Your task to perform on an android device: Open Google Maps and go to "Timeline" Image 0: 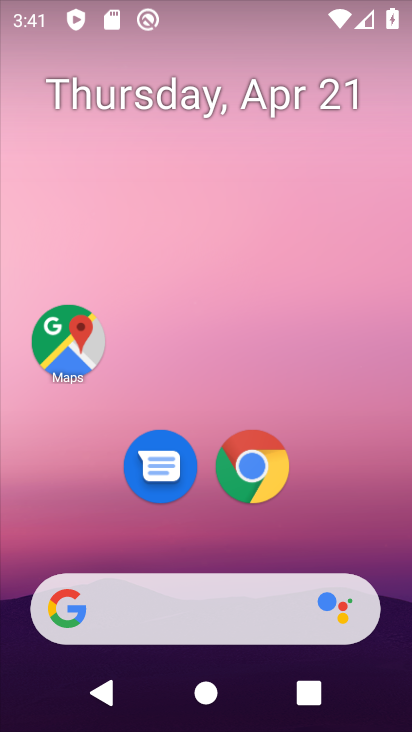
Step 0: click (71, 360)
Your task to perform on an android device: Open Google Maps and go to "Timeline" Image 1: 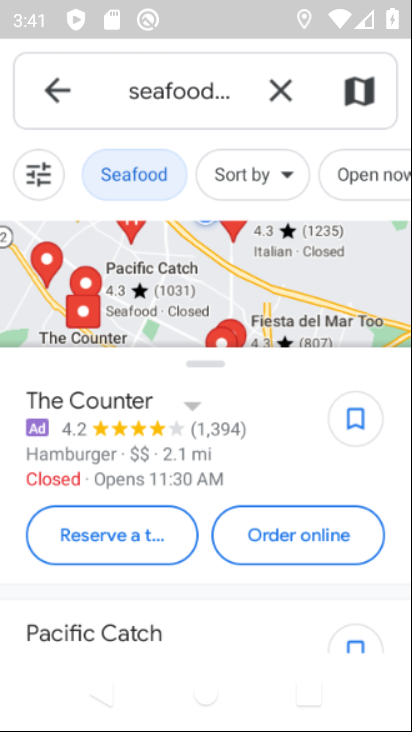
Step 1: click (49, 98)
Your task to perform on an android device: Open Google Maps and go to "Timeline" Image 2: 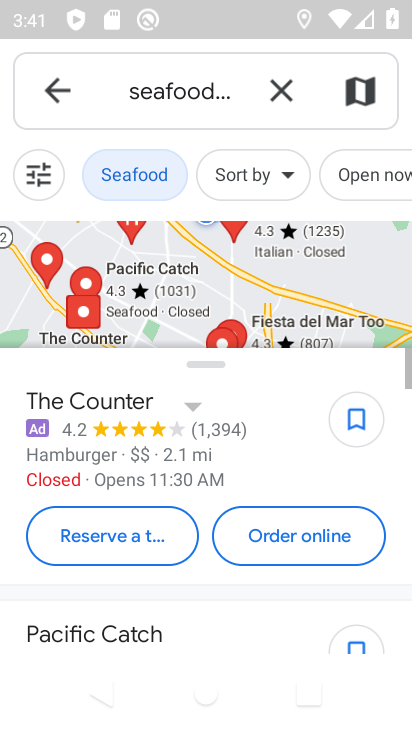
Step 2: click (59, 90)
Your task to perform on an android device: Open Google Maps and go to "Timeline" Image 3: 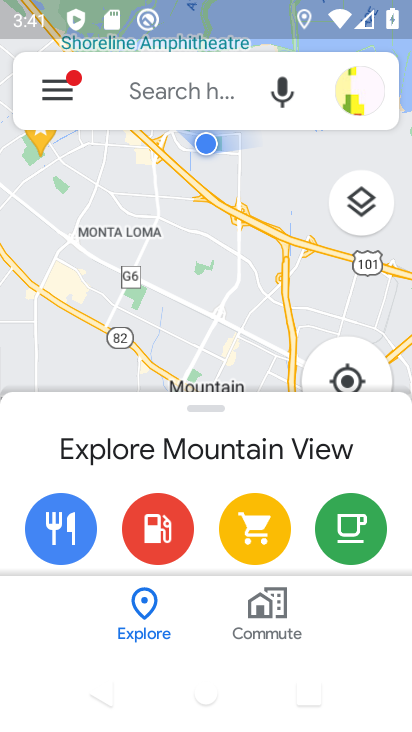
Step 3: click (49, 87)
Your task to perform on an android device: Open Google Maps and go to "Timeline" Image 4: 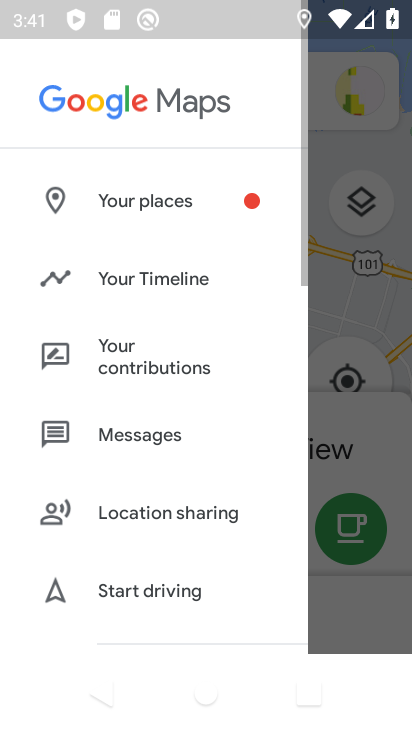
Step 4: click (145, 290)
Your task to perform on an android device: Open Google Maps and go to "Timeline" Image 5: 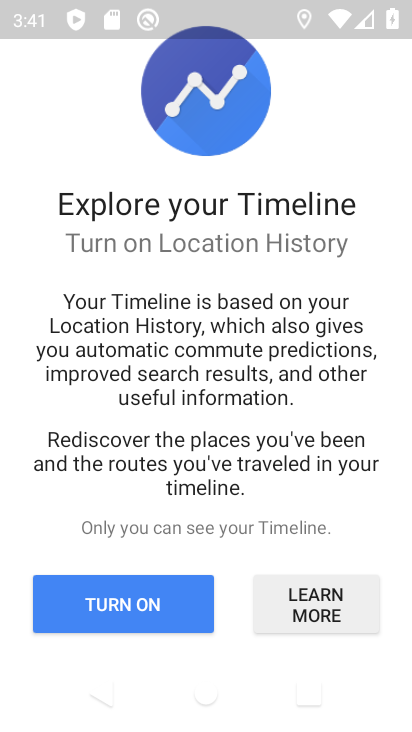
Step 5: click (172, 606)
Your task to perform on an android device: Open Google Maps and go to "Timeline" Image 6: 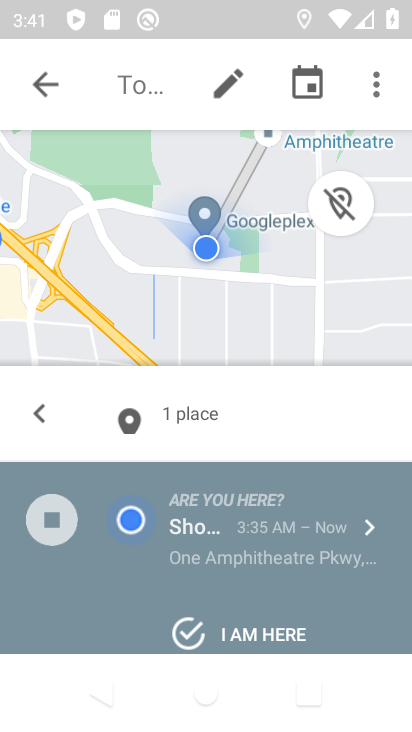
Step 6: click (371, 92)
Your task to perform on an android device: Open Google Maps and go to "Timeline" Image 7: 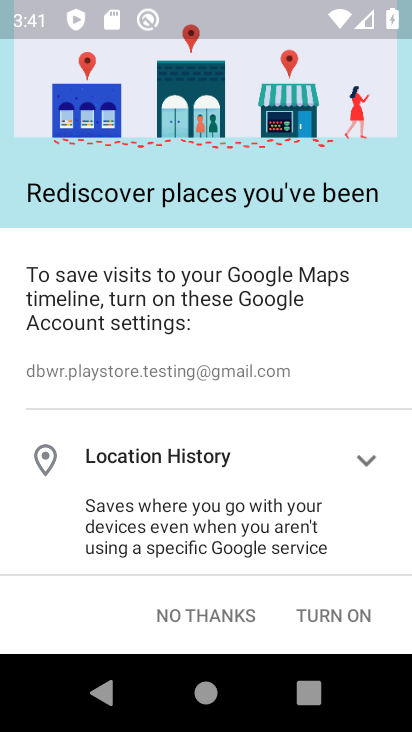
Step 7: click (321, 620)
Your task to perform on an android device: Open Google Maps and go to "Timeline" Image 8: 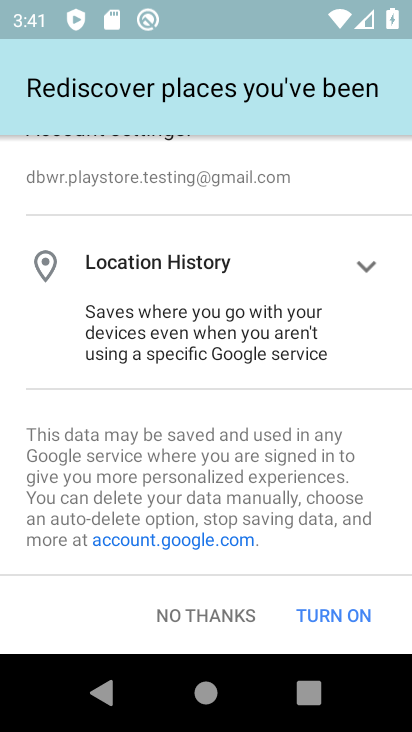
Step 8: click (322, 614)
Your task to perform on an android device: Open Google Maps and go to "Timeline" Image 9: 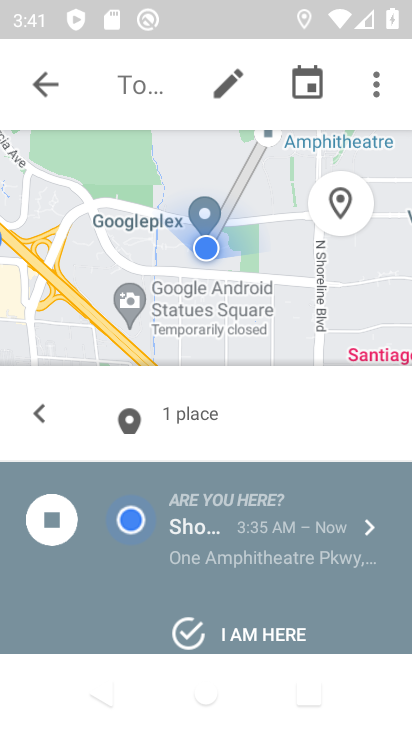
Step 9: task complete